Your task to perform on an android device: turn off notifications settings in the gmail app Image 0: 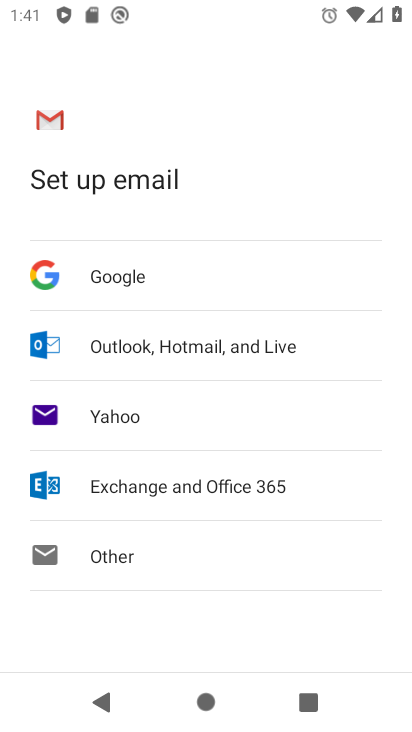
Step 0: press home button
Your task to perform on an android device: turn off notifications settings in the gmail app Image 1: 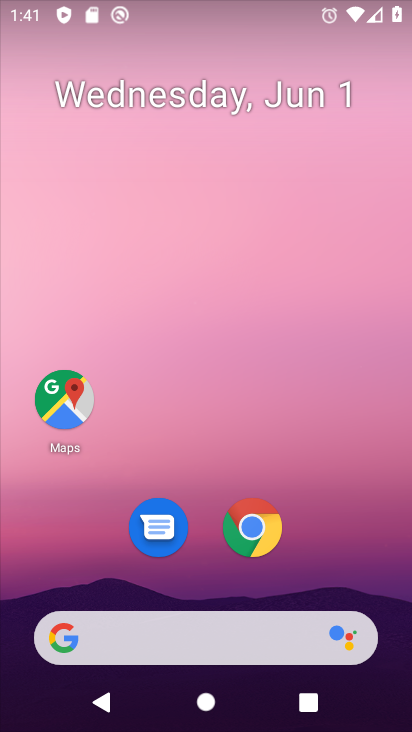
Step 1: drag from (361, 590) to (266, 90)
Your task to perform on an android device: turn off notifications settings in the gmail app Image 2: 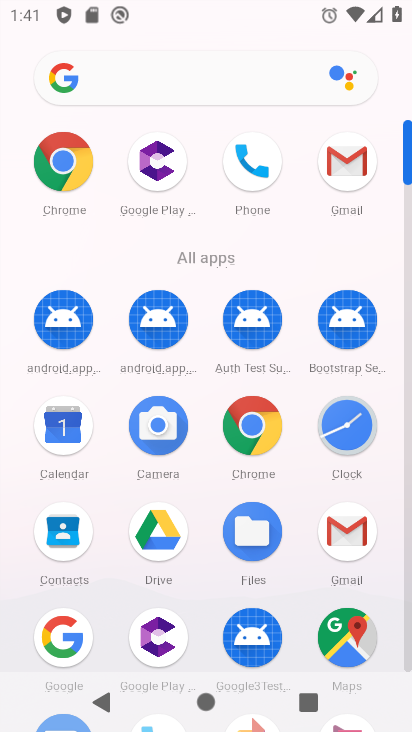
Step 2: click (347, 167)
Your task to perform on an android device: turn off notifications settings in the gmail app Image 3: 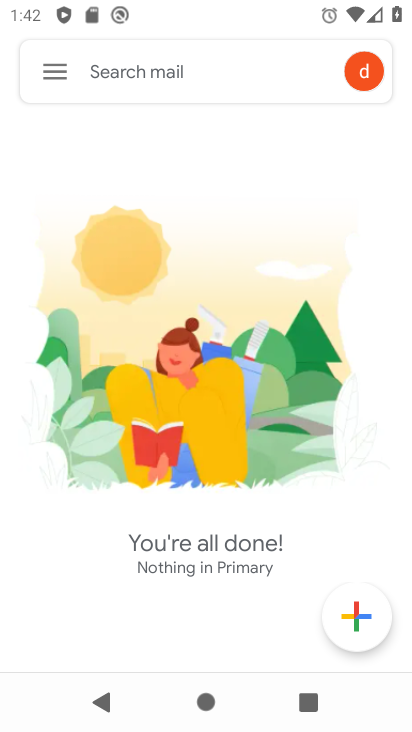
Step 3: click (56, 70)
Your task to perform on an android device: turn off notifications settings in the gmail app Image 4: 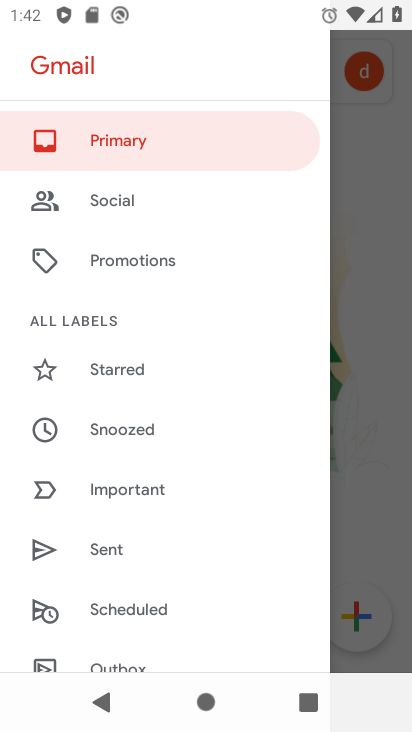
Step 4: drag from (168, 642) to (114, 292)
Your task to perform on an android device: turn off notifications settings in the gmail app Image 5: 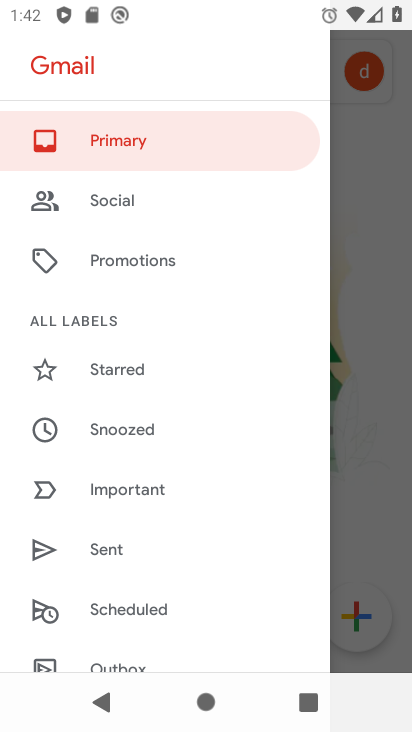
Step 5: drag from (150, 589) to (164, 138)
Your task to perform on an android device: turn off notifications settings in the gmail app Image 6: 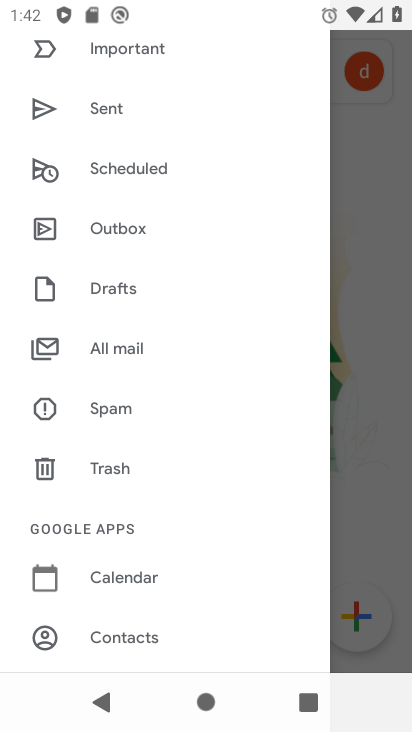
Step 6: drag from (199, 522) to (193, 222)
Your task to perform on an android device: turn off notifications settings in the gmail app Image 7: 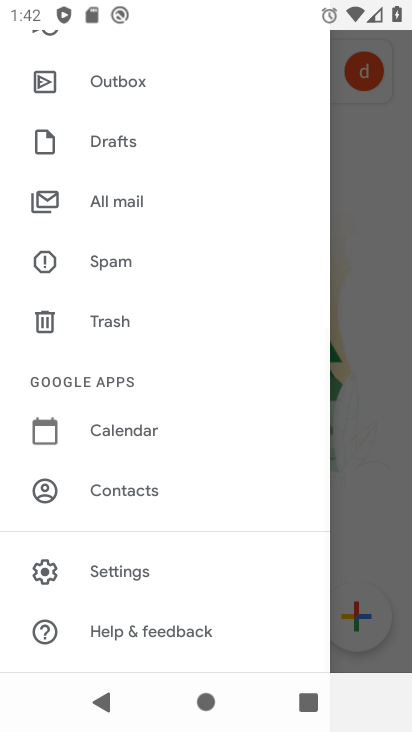
Step 7: click (166, 584)
Your task to perform on an android device: turn off notifications settings in the gmail app Image 8: 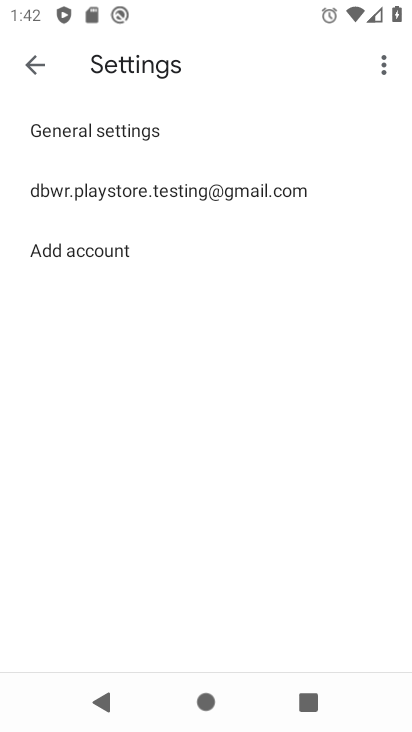
Step 8: click (221, 203)
Your task to perform on an android device: turn off notifications settings in the gmail app Image 9: 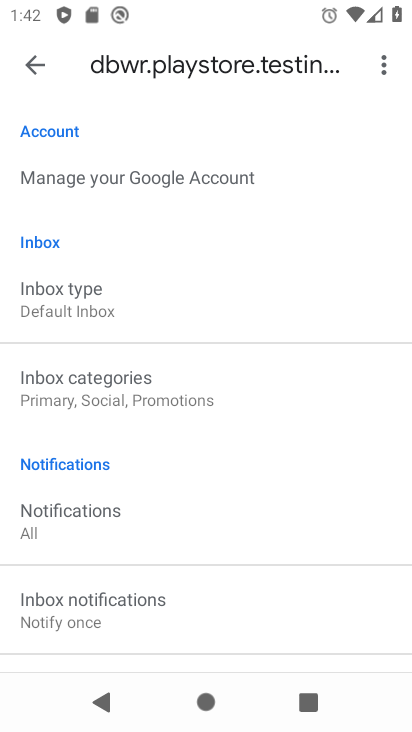
Step 9: drag from (204, 492) to (190, 234)
Your task to perform on an android device: turn off notifications settings in the gmail app Image 10: 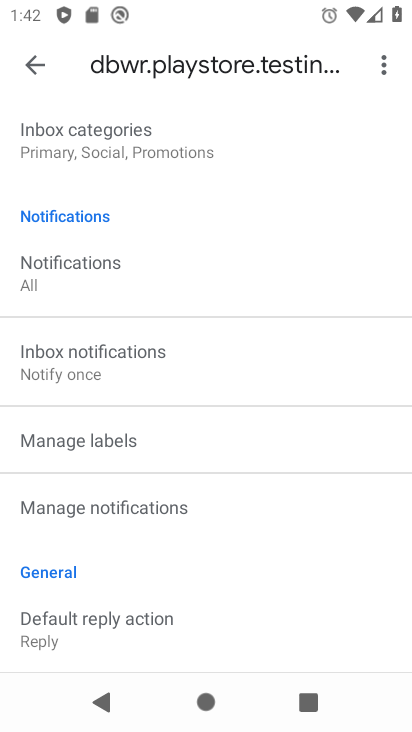
Step 10: click (194, 516)
Your task to perform on an android device: turn off notifications settings in the gmail app Image 11: 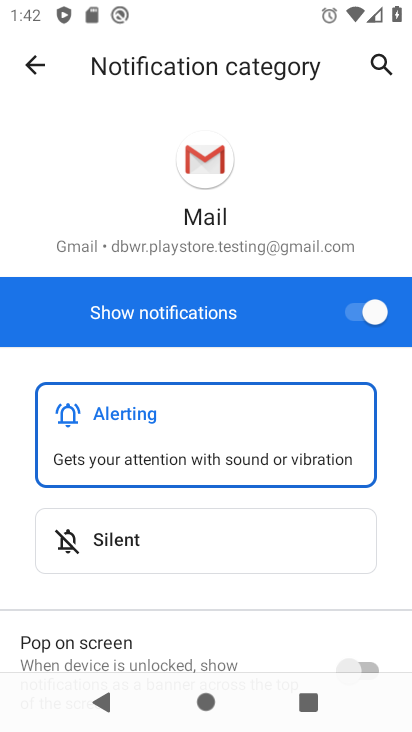
Step 11: task complete